Your task to perform on an android device: turn on translation in the chrome app Image 0: 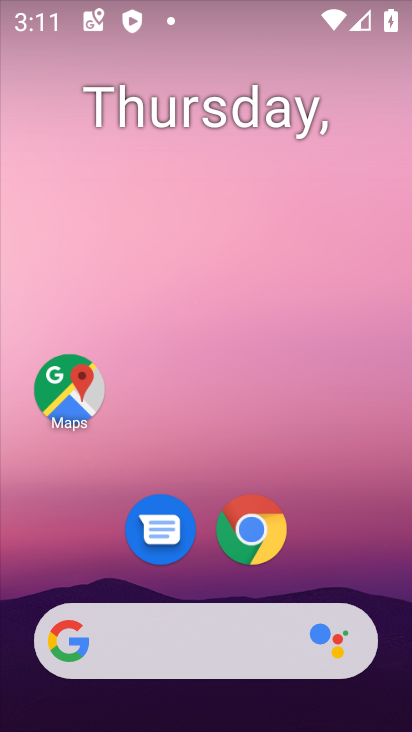
Step 0: drag from (329, 540) to (67, 13)
Your task to perform on an android device: turn on translation in the chrome app Image 1: 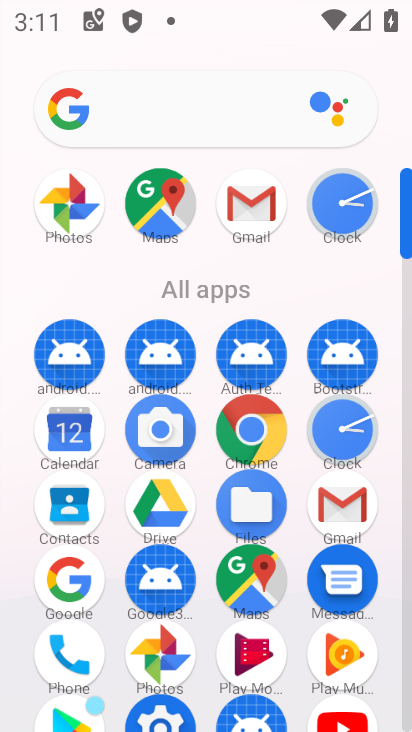
Step 1: click (246, 469)
Your task to perform on an android device: turn on translation in the chrome app Image 2: 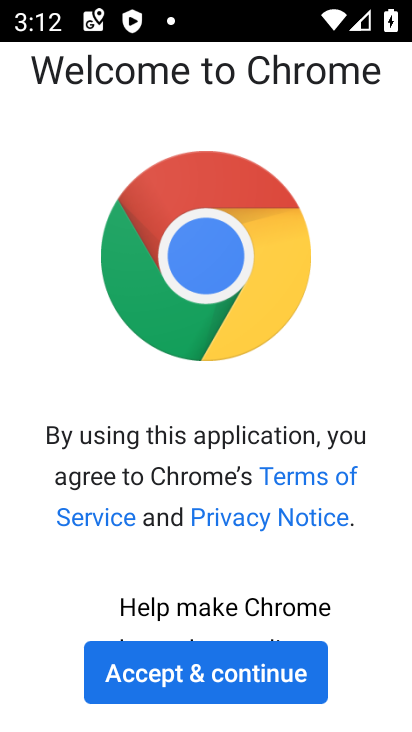
Step 2: click (183, 665)
Your task to perform on an android device: turn on translation in the chrome app Image 3: 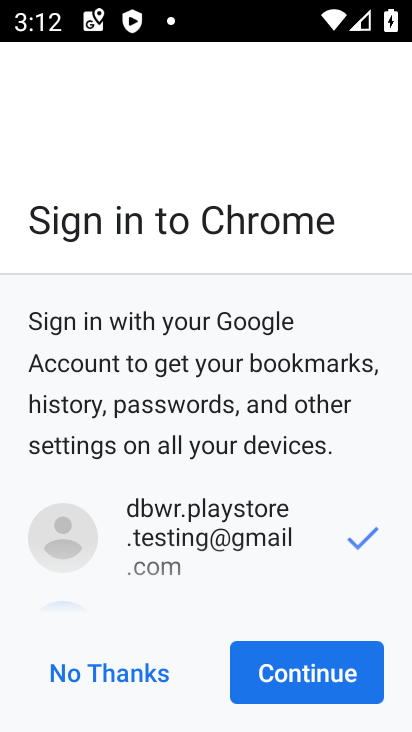
Step 3: click (142, 673)
Your task to perform on an android device: turn on translation in the chrome app Image 4: 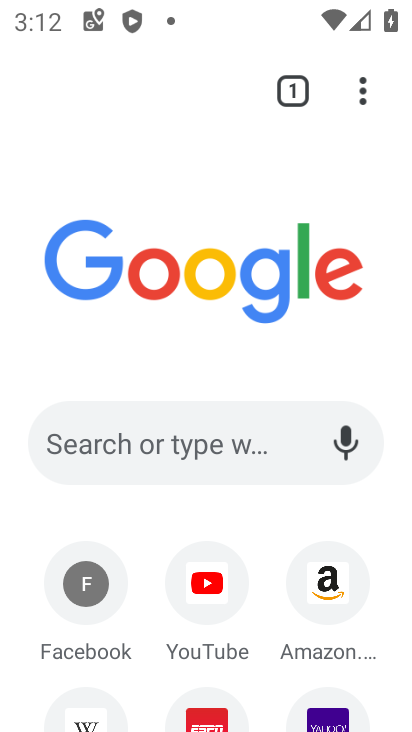
Step 4: drag from (373, 103) to (119, 577)
Your task to perform on an android device: turn on translation in the chrome app Image 5: 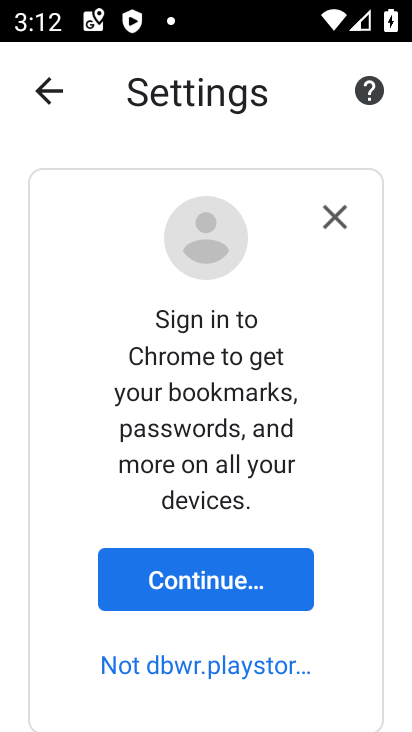
Step 5: click (172, 595)
Your task to perform on an android device: turn on translation in the chrome app Image 6: 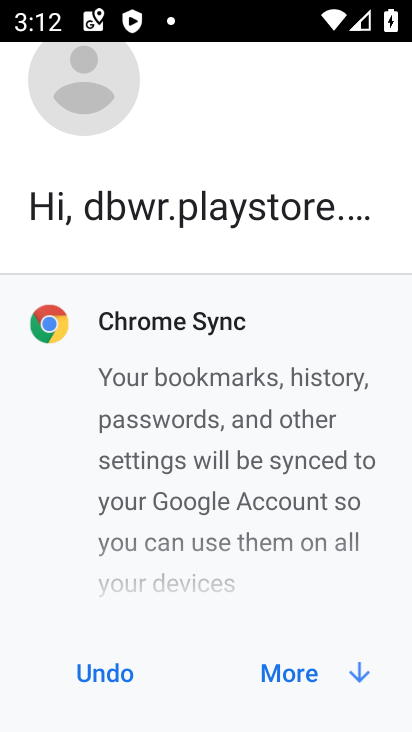
Step 6: click (285, 669)
Your task to perform on an android device: turn on translation in the chrome app Image 7: 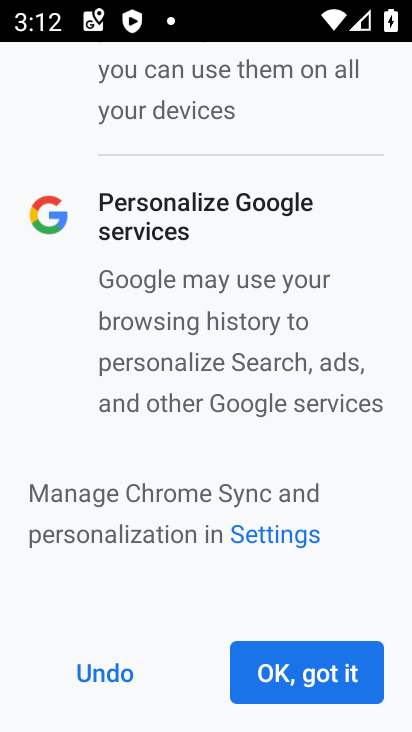
Step 7: click (286, 671)
Your task to perform on an android device: turn on translation in the chrome app Image 8: 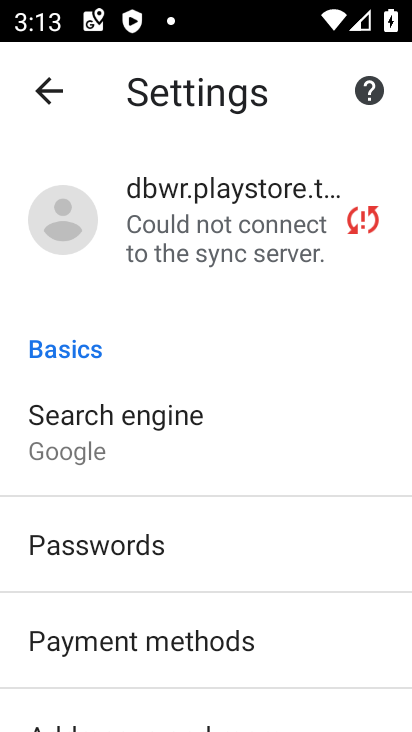
Step 8: drag from (265, 566) to (178, 129)
Your task to perform on an android device: turn on translation in the chrome app Image 9: 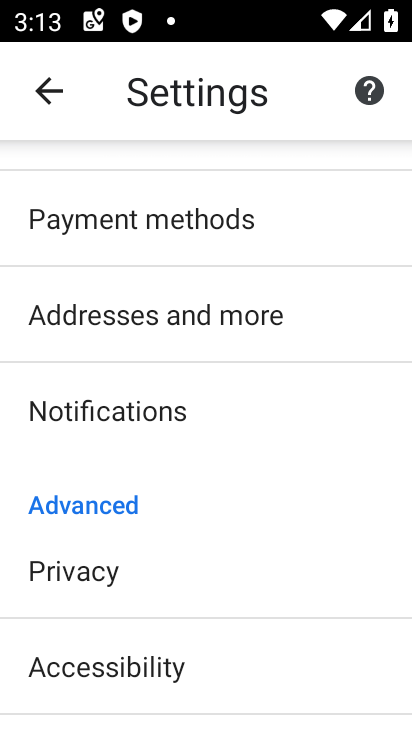
Step 9: drag from (278, 580) to (217, 155)
Your task to perform on an android device: turn on translation in the chrome app Image 10: 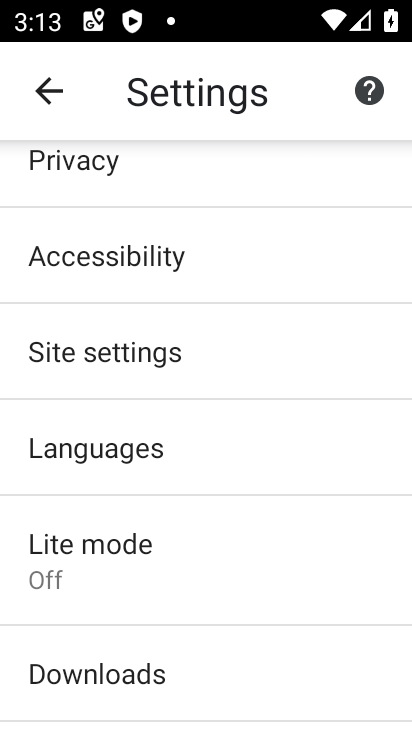
Step 10: click (154, 443)
Your task to perform on an android device: turn on translation in the chrome app Image 11: 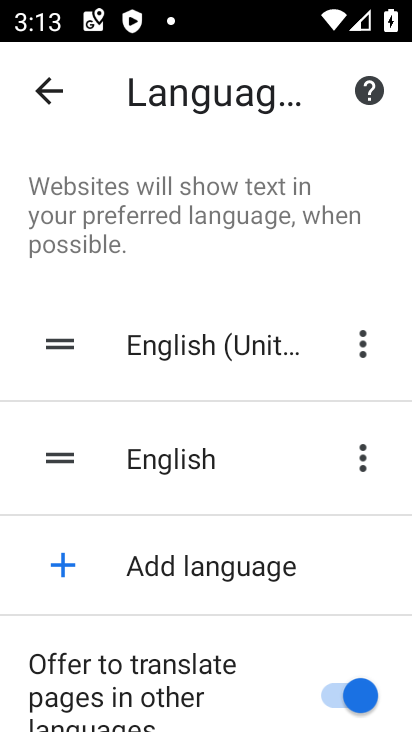
Step 11: task complete